Your task to perform on an android device: Open ESPN.com Image 0: 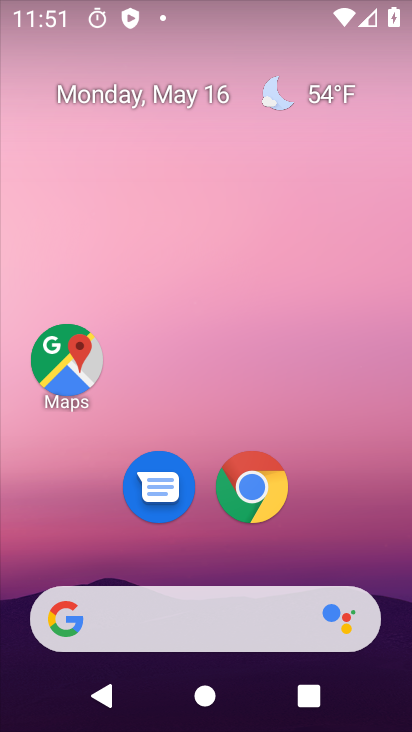
Step 0: click (244, 505)
Your task to perform on an android device: Open ESPN.com Image 1: 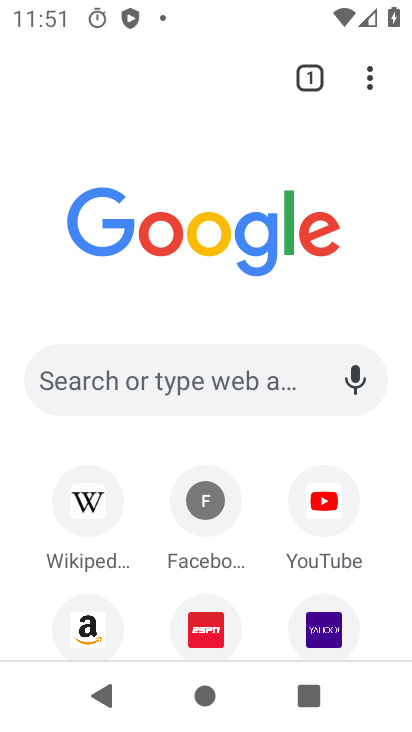
Step 1: drag from (184, 598) to (256, 251)
Your task to perform on an android device: Open ESPN.com Image 2: 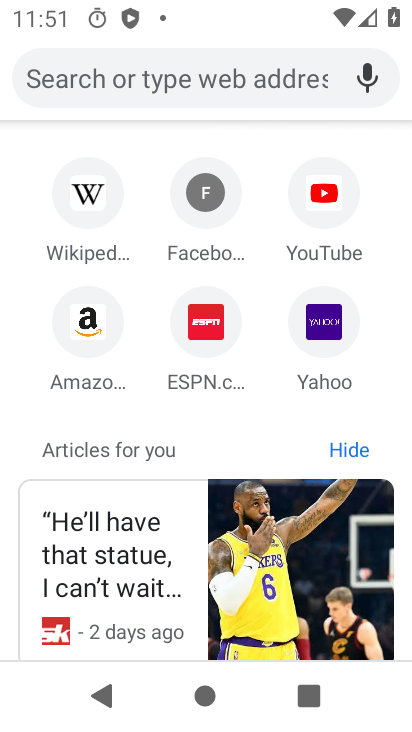
Step 2: click (206, 327)
Your task to perform on an android device: Open ESPN.com Image 3: 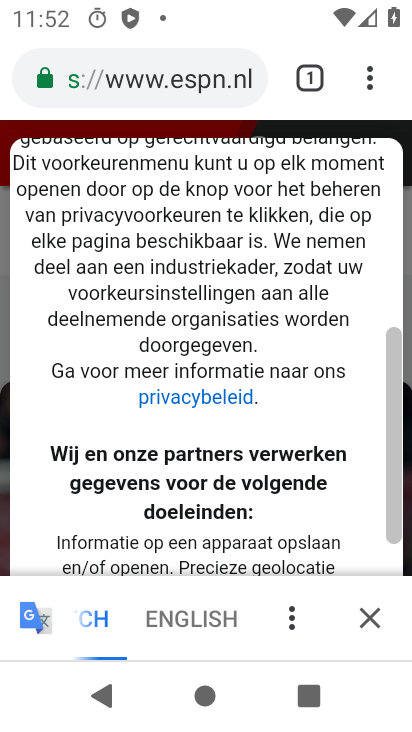
Step 3: task complete